Your task to perform on an android device: Show the shopping cart on amazon.com. Search for "dell xps" on amazon.com, select the first entry, add it to the cart, then select checkout. Image 0: 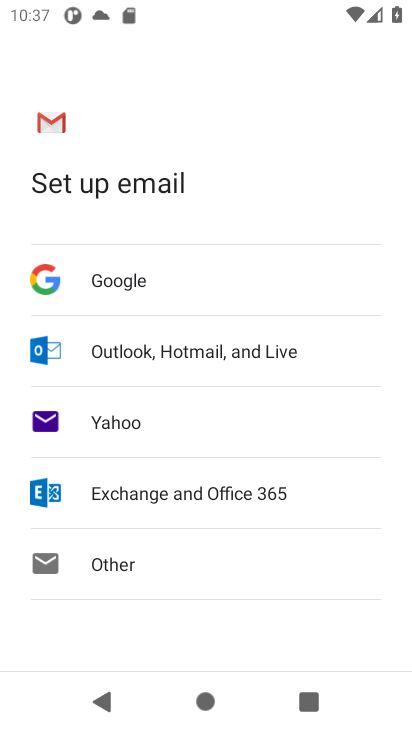
Step 0: press home button
Your task to perform on an android device: Show the shopping cart on amazon.com. Search for "dell xps" on amazon.com, select the first entry, add it to the cart, then select checkout. Image 1: 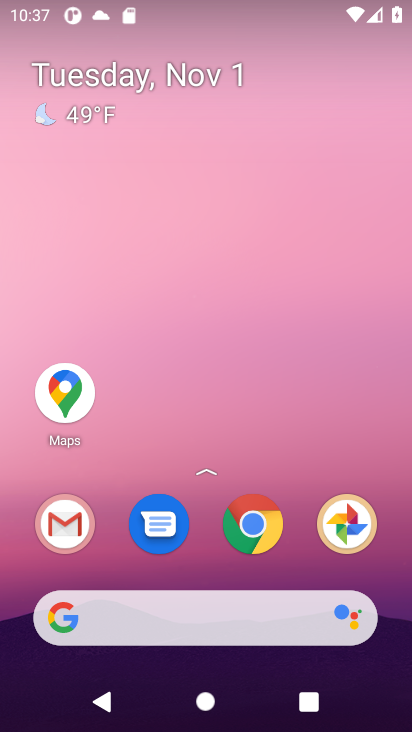
Step 1: click (111, 611)
Your task to perform on an android device: Show the shopping cart on amazon.com. Search for "dell xps" on amazon.com, select the first entry, add it to the cart, then select checkout. Image 2: 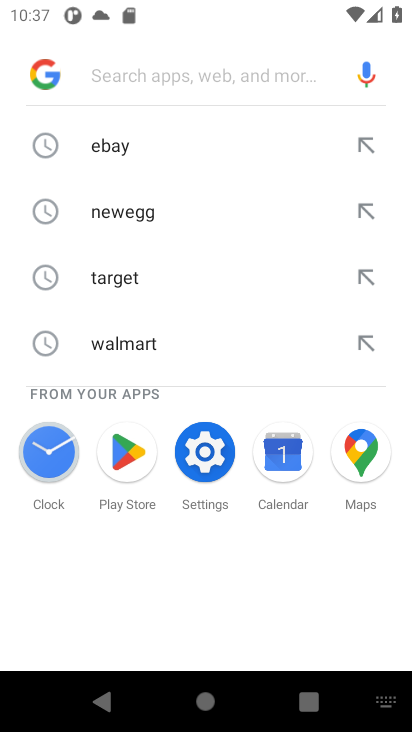
Step 2: press enter
Your task to perform on an android device: Show the shopping cart on amazon.com. Search for "dell xps" on amazon.com, select the first entry, add it to the cart, then select checkout. Image 3: 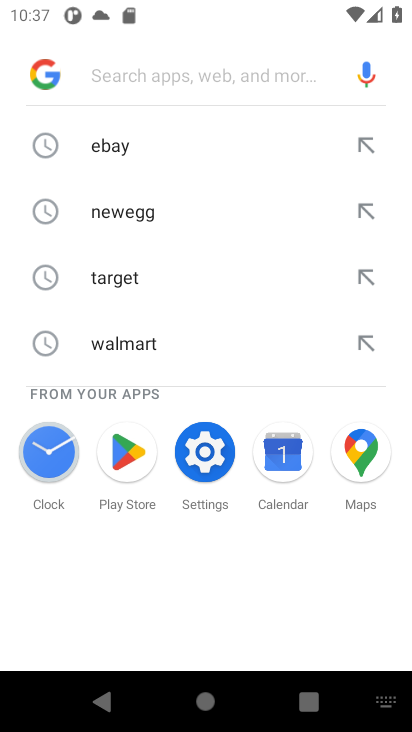
Step 3: type "amazon.com"
Your task to perform on an android device: Show the shopping cart on amazon.com. Search for "dell xps" on amazon.com, select the first entry, add it to the cart, then select checkout. Image 4: 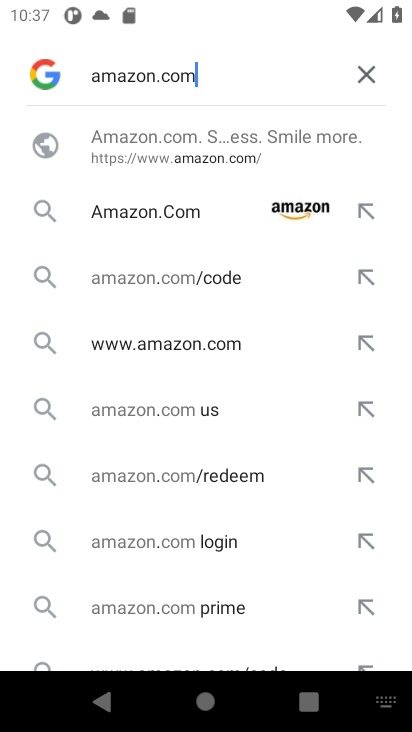
Step 4: press enter
Your task to perform on an android device: Show the shopping cart on amazon.com. Search for "dell xps" on amazon.com, select the first entry, add it to the cart, then select checkout. Image 5: 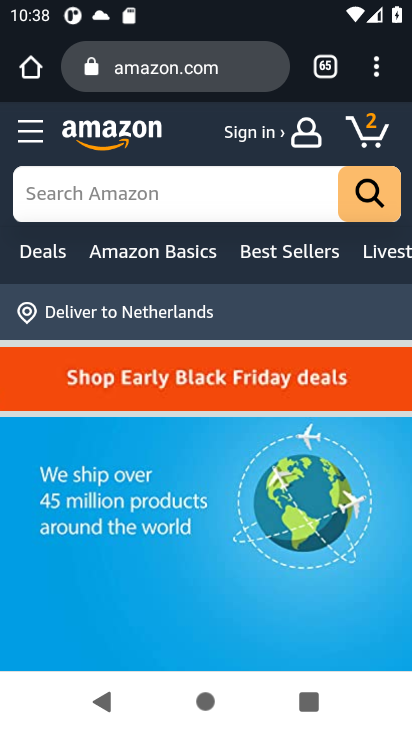
Step 5: click (375, 139)
Your task to perform on an android device: Show the shopping cart on amazon.com. Search for "dell xps" on amazon.com, select the first entry, add it to the cart, then select checkout. Image 6: 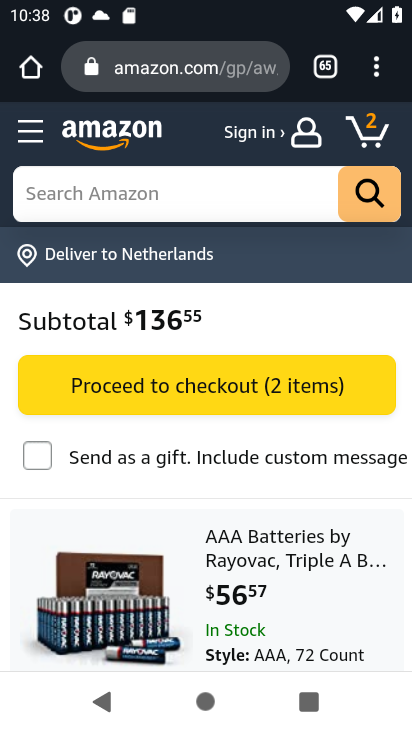
Step 6: click (102, 196)
Your task to perform on an android device: Show the shopping cart on amazon.com. Search for "dell xps" on amazon.com, select the first entry, add it to the cart, then select checkout. Image 7: 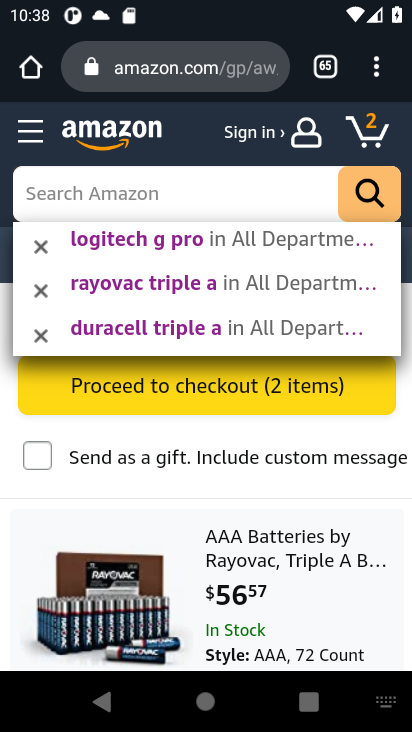
Step 7: press enter
Your task to perform on an android device: Show the shopping cart on amazon.com. Search for "dell xps" on amazon.com, select the first entry, add it to the cart, then select checkout. Image 8: 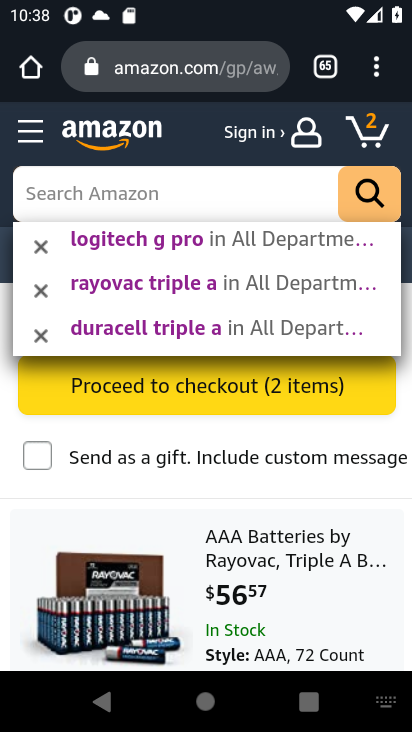
Step 8: type "dell xps"
Your task to perform on an android device: Show the shopping cart on amazon.com. Search for "dell xps" on amazon.com, select the first entry, add it to the cart, then select checkout. Image 9: 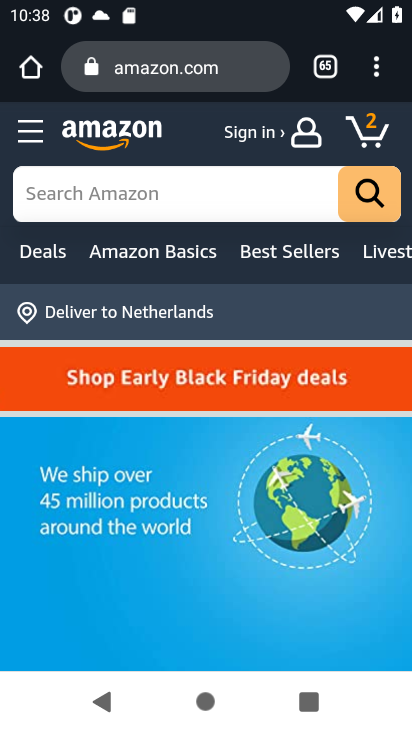
Step 9: click (113, 201)
Your task to perform on an android device: Show the shopping cart on amazon.com. Search for "dell xps" on amazon.com, select the first entry, add it to the cart, then select checkout. Image 10: 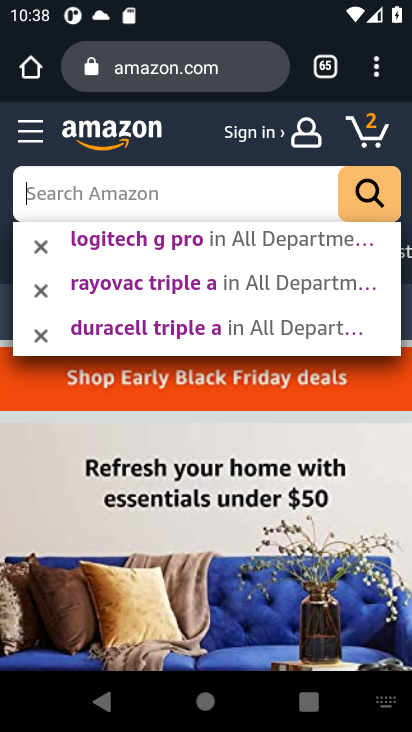
Step 10: type "dell xps"
Your task to perform on an android device: Show the shopping cart on amazon.com. Search for "dell xps" on amazon.com, select the first entry, add it to the cart, then select checkout. Image 11: 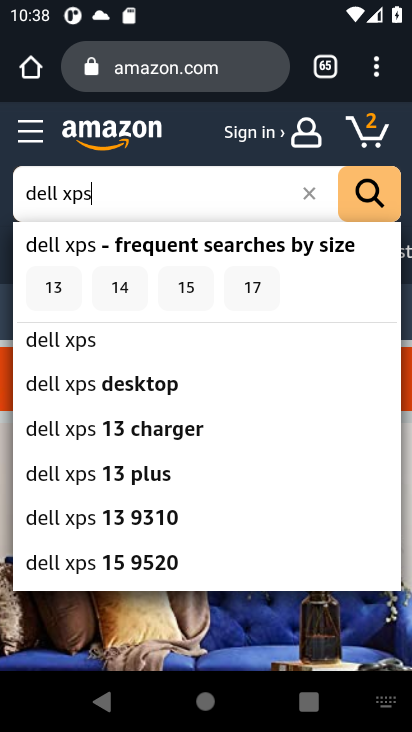
Step 11: click (363, 191)
Your task to perform on an android device: Show the shopping cart on amazon.com. Search for "dell xps" on amazon.com, select the first entry, add it to the cart, then select checkout. Image 12: 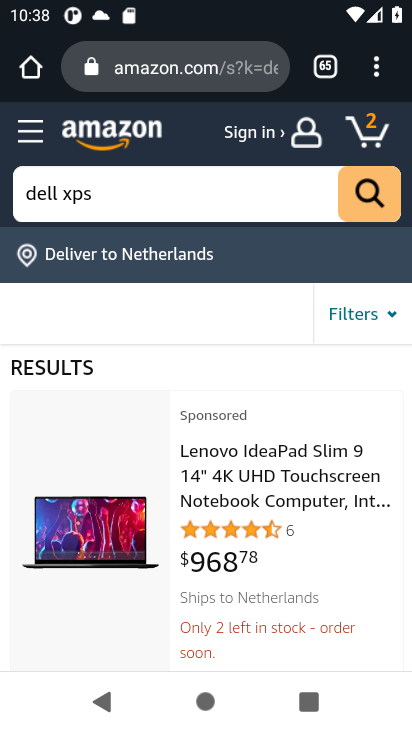
Step 12: drag from (271, 561) to (258, 344)
Your task to perform on an android device: Show the shopping cart on amazon.com. Search for "dell xps" on amazon.com, select the first entry, add it to the cart, then select checkout. Image 13: 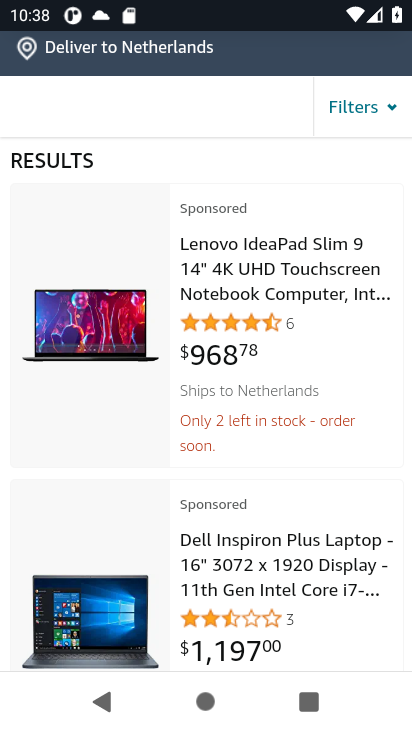
Step 13: drag from (243, 578) to (253, 373)
Your task to perform on an android device: Show the shopping cart on amazon.com. Search for "dell xps" on amazon.com, select the first entry, add it to the cart, then select checkout. Image 14: 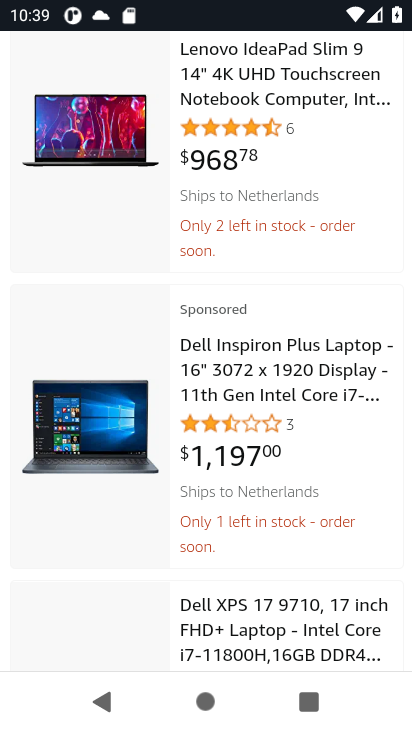
Step 14: drag from (269, 520) to (294, 322)
Your task to perform on an android device: Show the shopping cart on amazon.com. Search for "dell xps" on amazon.com, select the first entry, add it to the cart, then select checkout. Image 15: 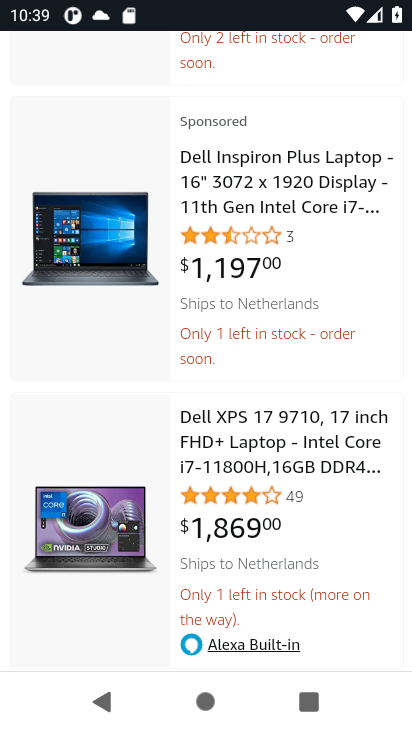
Step 15: drag from (267, 500) to (270, 260)
Your task to perform on an android device: Show the shopping cart on amazon.com. Search for "dell xps" on amazon.com, select the first entry, add it to the cart, then select checkout. Image 16: 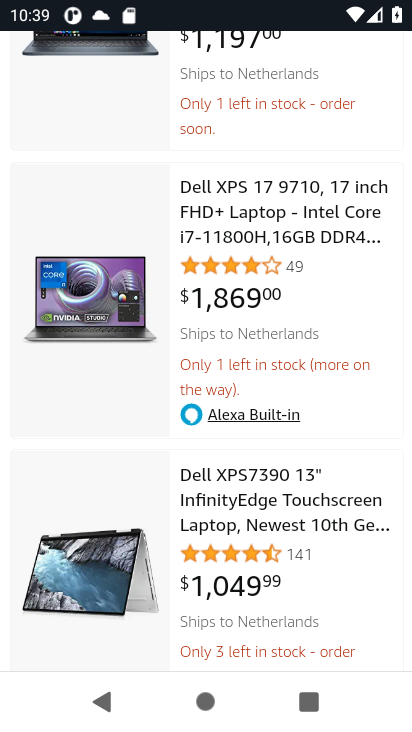
Step 16: click (274, 213)
Your task to perform on an android device: Show the shopping cart on amazon.com. Search for "dell xps" on amazon.com, select the first entry, add it to the cart, then select checkout. Image 17: 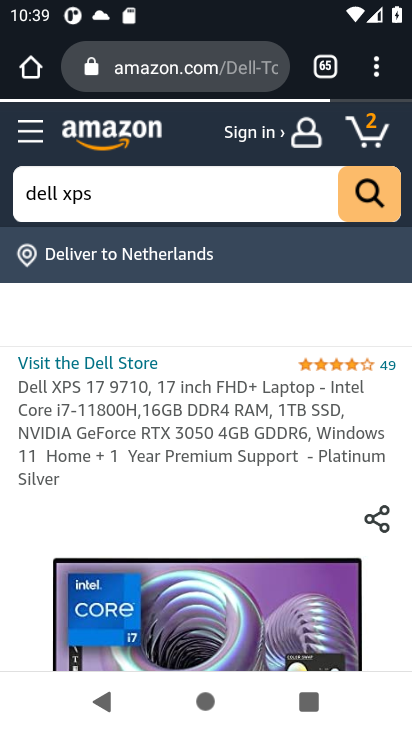
Step 17: drag from (254, 544) to (249, 294)
Your task to perform on an android device: Show the shopping cart on amazon.com. Search for "dell xps" on amazon.com, select the first entry, add it to the cart, then select checkout. Image 18: 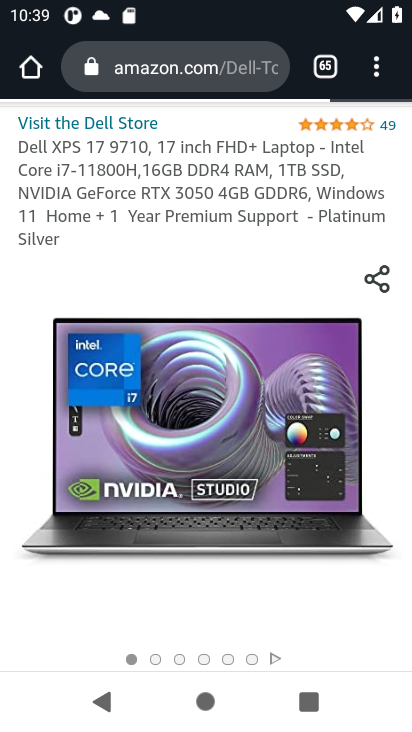
Step 18: drag from (238, 536) to (233, 236)
Your task to perform on an android device: Show the shopping cart on amazon.com. Search for "dell xps" on amazon.com, select the first entry, add it to the cart, then select checkout. Image 19: 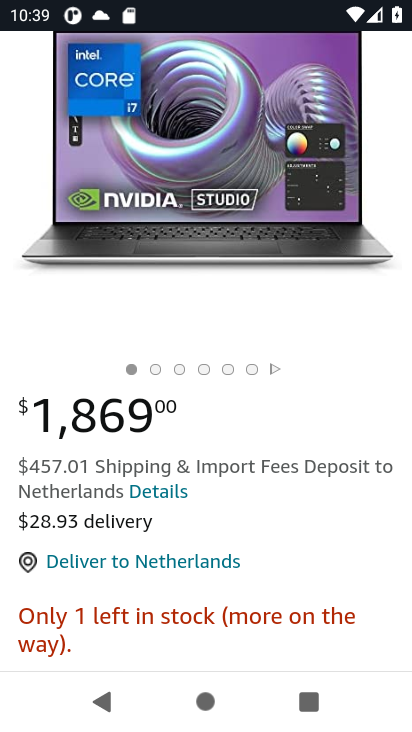
Step 19: drag from (254, 501) to (250, 261)
Your task to perform on an android device: Show the shopping cart on amazon.com. Search for "dell xps" on amazon.com, select the first entry, add it to the cart, then select checkout. Image 20: 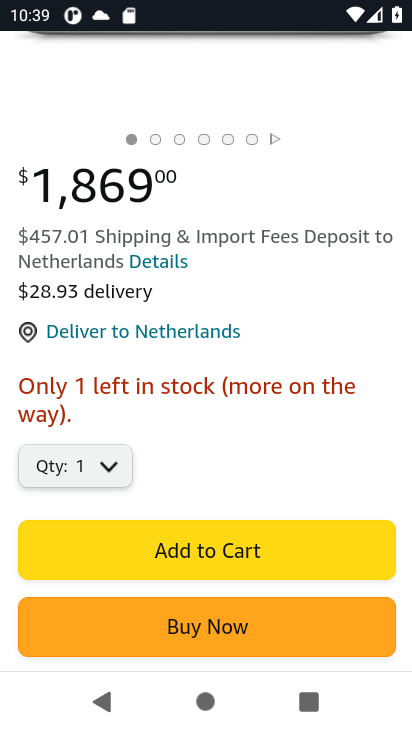
Step 20: drag from (258, 599) to (258, 315)
Your task to perform on an android device: Show the shopping cart on amazon.com. Search for "dell xps" on amazon.com, select the first entry, add it to the cart, then select checkout. Image 21: 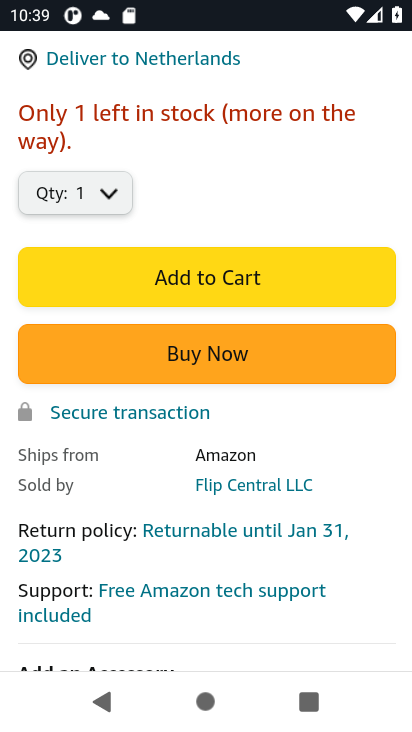
Step 21: click (194, 278)
Your task to perform on an android device: Show the shopping cart on amazon.com. Search for "dell xps" on amazon.com, select the first entry, add it to the cart, then select checkout. Image 22: 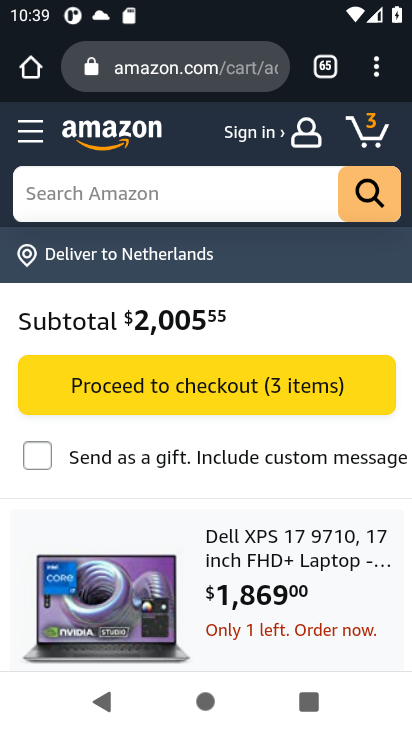
Step 22: click (216, 389)
Your task to perform on an android device: Show the shopping cart on amazon.com. Search for "dell xps" on amazon.com, select the first entry, add it to the cart, then select checkout. Image 23: 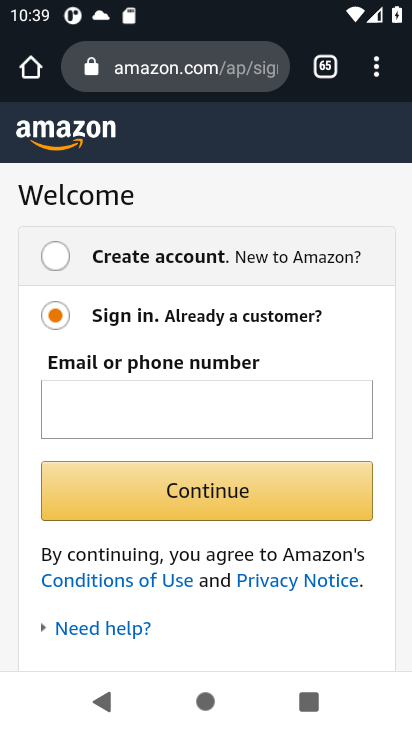
Step 23: task complete